Your task to perform on an android device: Open Yahoo.com Image 0: 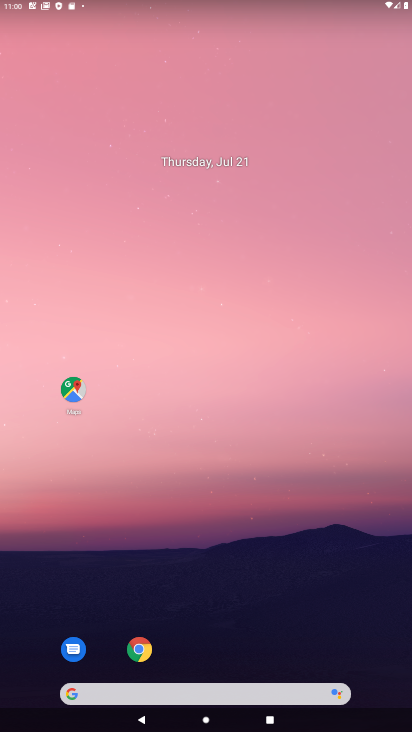
Step 0: click (150, 653)
Your task to perform on an android device: Open Yahoo.com Image 1: 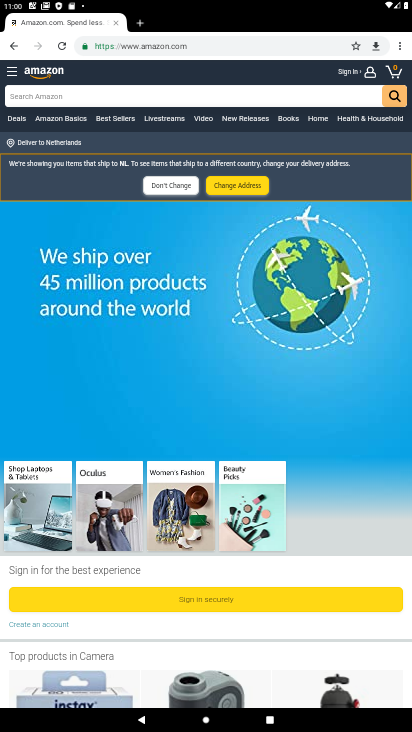
Step 1: click (226, 45)
Your task to perform on an android device: Open Yahoo.com Image 2: 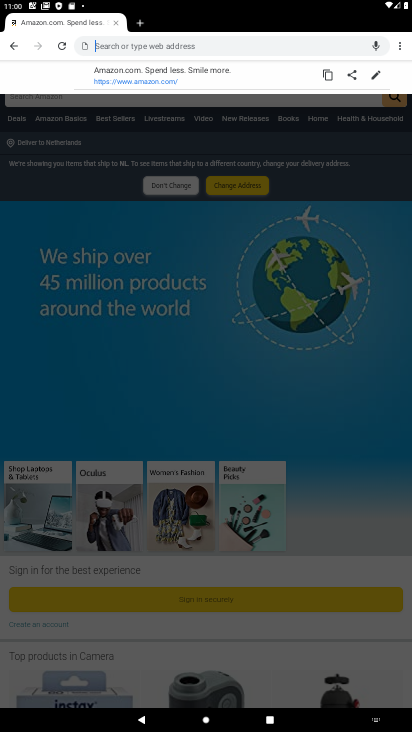
Step 2: type "yahoo.com"
Your task to perform on an android device: Open Yahoo.com Image 3: 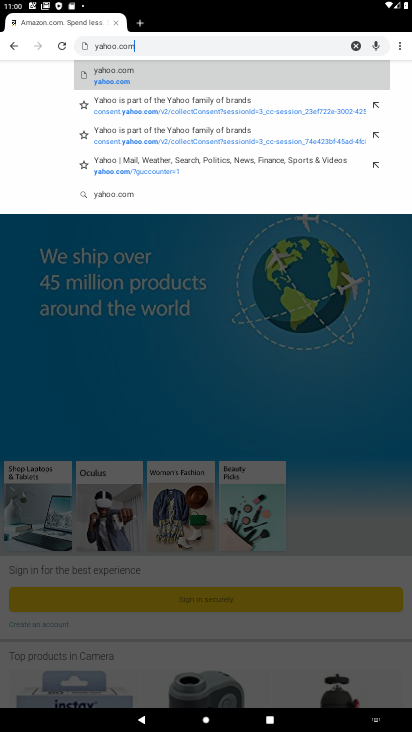
Step 3: click (170, 71)
Your task to perform on an android device: Open Yahoo.com Image 4: 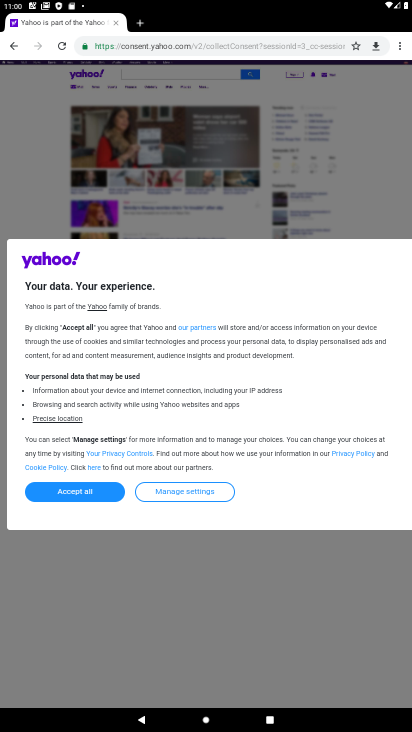
Step 4: task complete